Your task to perform on an android device: Go to Wikipedia Image 0: 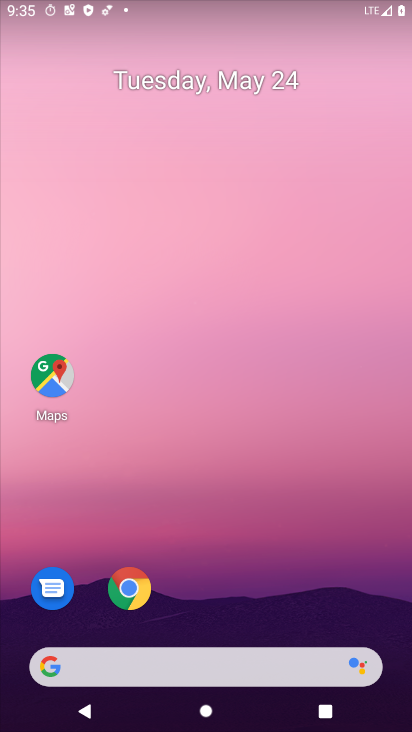
Step 0: click (135, 584)
Your task to perform on an android device: Go to Wikipedia Image 1: 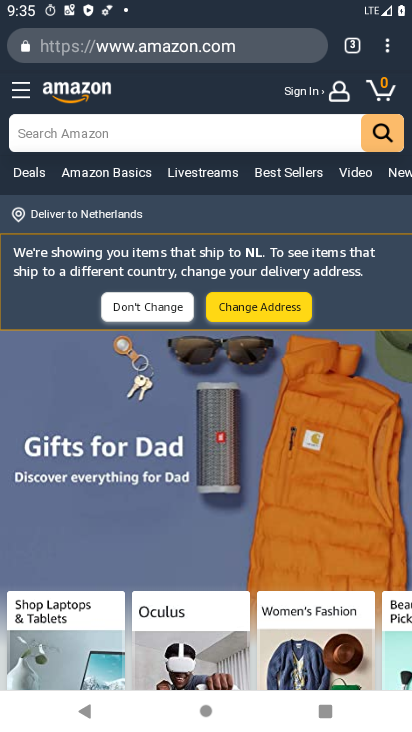
Step 1: click (349, 45)
Your task to perform on an android device: Go to Wikipedia Image 2: 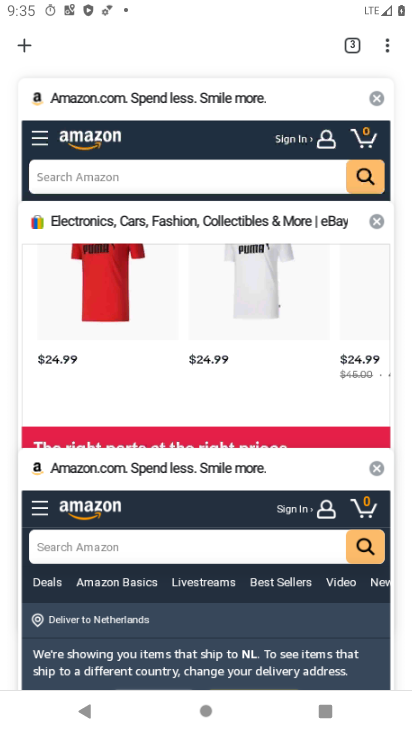
Step 2: click (20, 40)
Your task to perform on an android device: Go to Wikipedia Image 3: 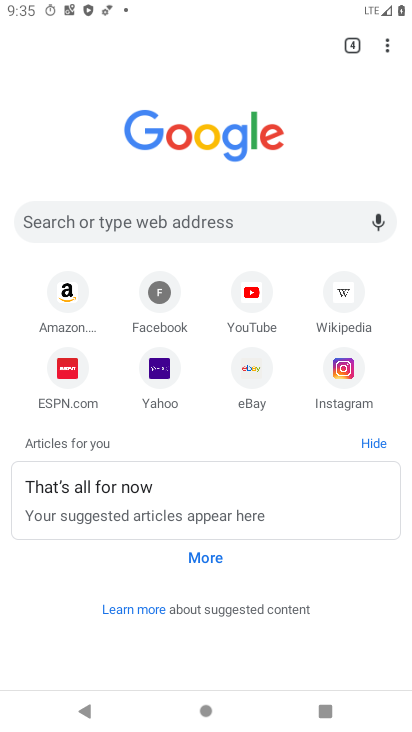
Step 3: click (334, 304)
Your task to perform on an android device: Go to Wikipedia Image 4: 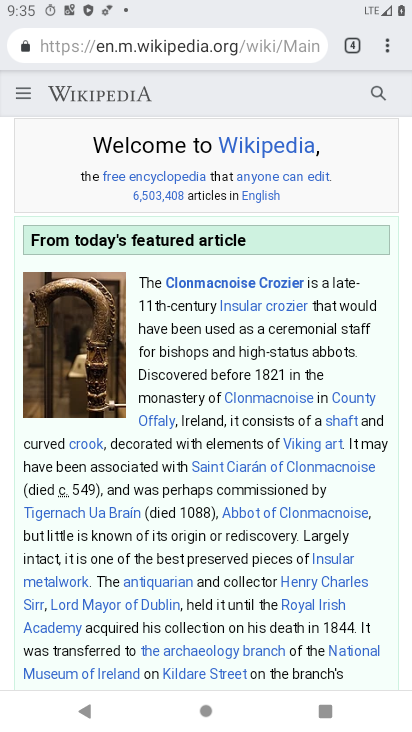
Step 4: task complete